Your task to perform on an android device: turn on airplane mode Image 0: 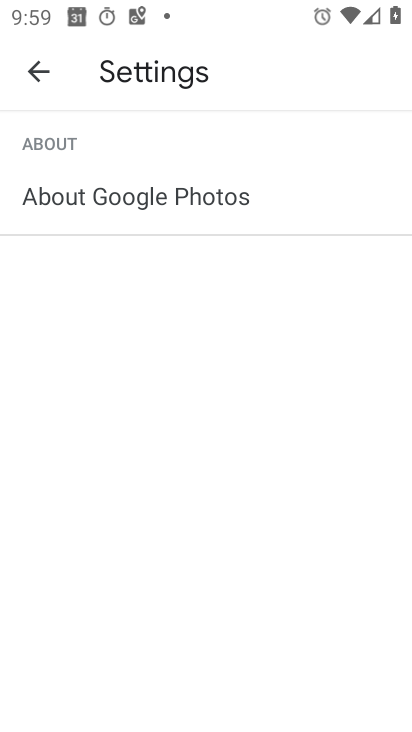
Step 0: press home button
Your task to perform on an android device: turn on airplane mode Image 1: 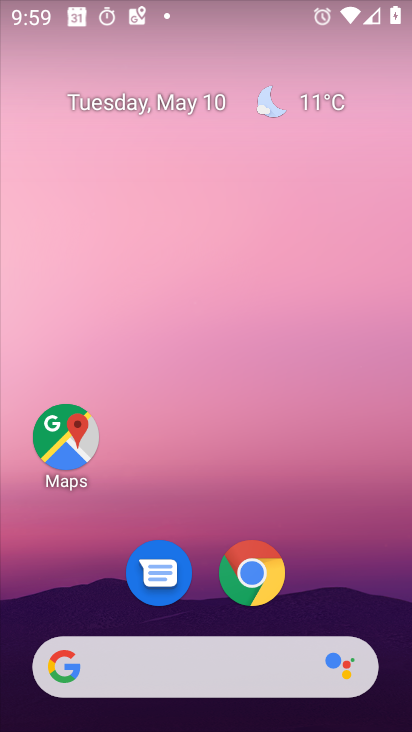
Step 1: drag from (224, 3) to (296, 573)
Your task to perform on an android device: turn on airplane mode Image 2: 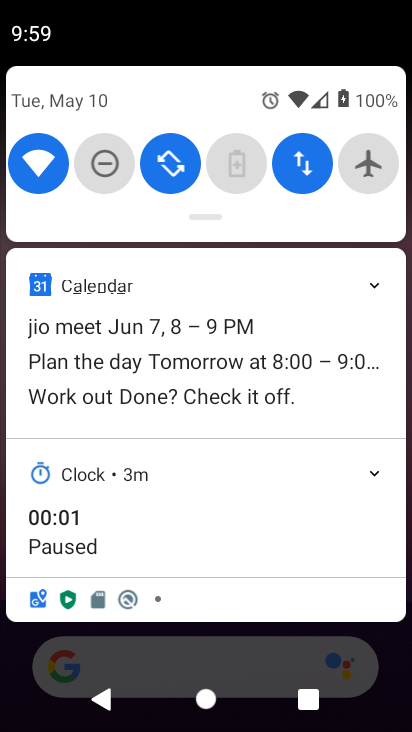
Step 2: click (365, 163)
Your task to perform on an android device: turn on airplane mode Image 3: 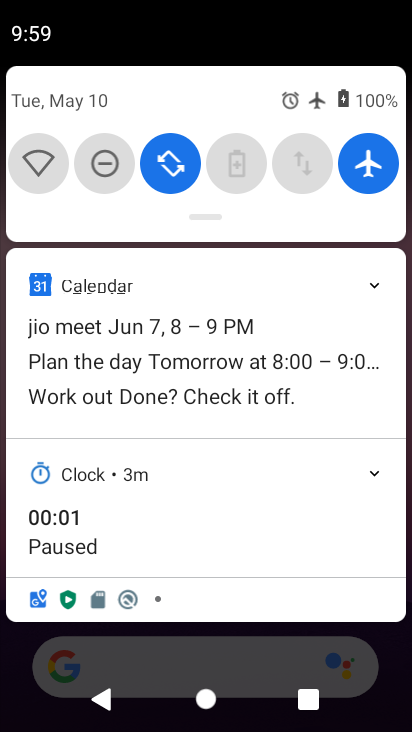
Step 3: task complete